Your task to perform on an android device: turn on javascript in the chrome app Image 0: 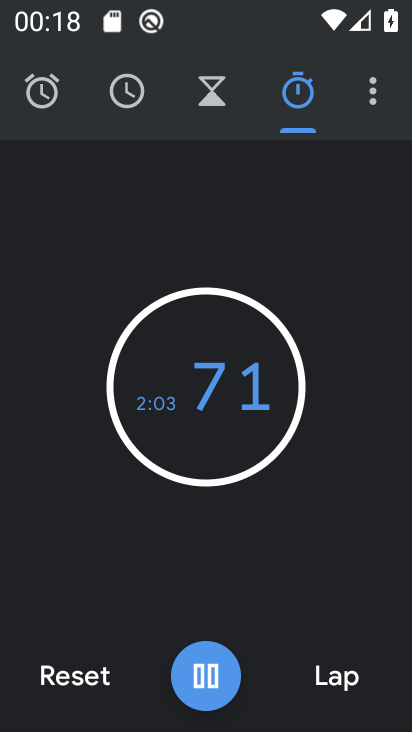
Step 0: press home button
Your task to perform on an android device: turn on javascript in the chrome app Image 1: 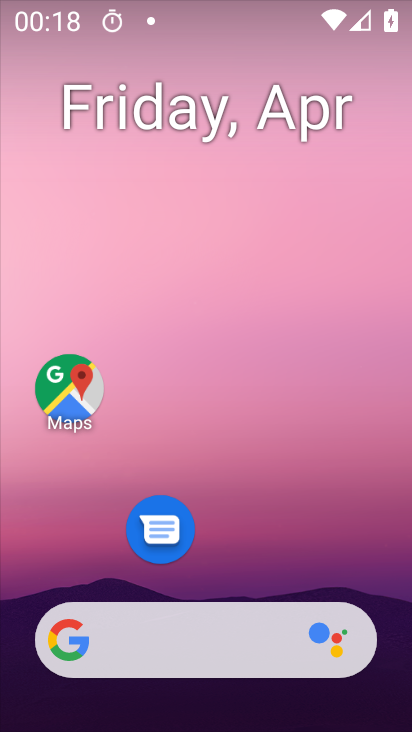
Step 1: drag from (236, 577) to (274, 114)
Your task to perform on an android device: turn on javascript in the chrome app Image 2: 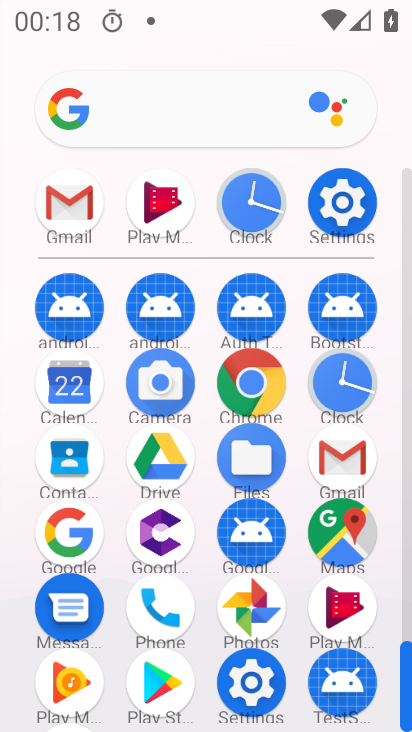
Step 2: click (270, 390)
Your task to perform on an android device: turn on javascript in the chrome app Image 3: 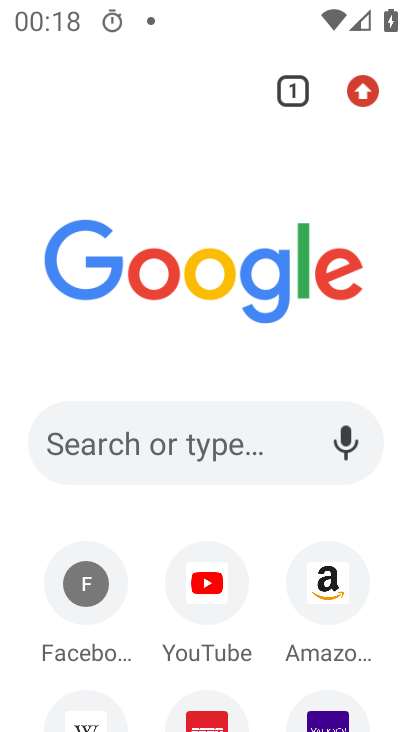
Step 3: click (366, 102)
Your task to perform on an android device: turn on javascript in the chrome app Image 4: 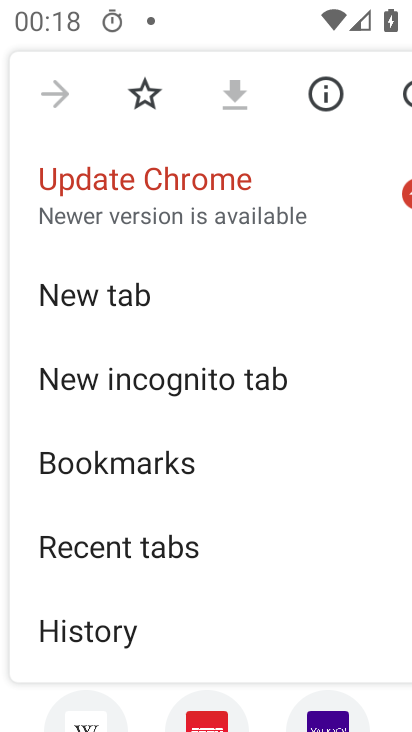
Step 4: drag from (173, 613) to (285, 215)
Your task to perform on an android device: turn on javascript in the chrome app Image 5: 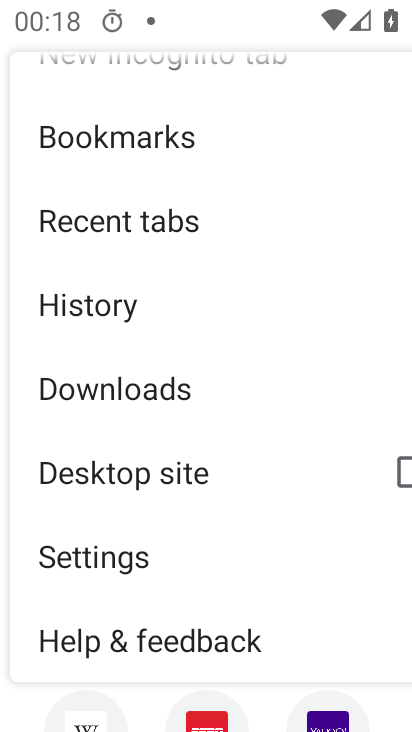
Step 5: click (127, 563)
Your task to perform on an android device: turn on javascript in the chrome app Image 6: 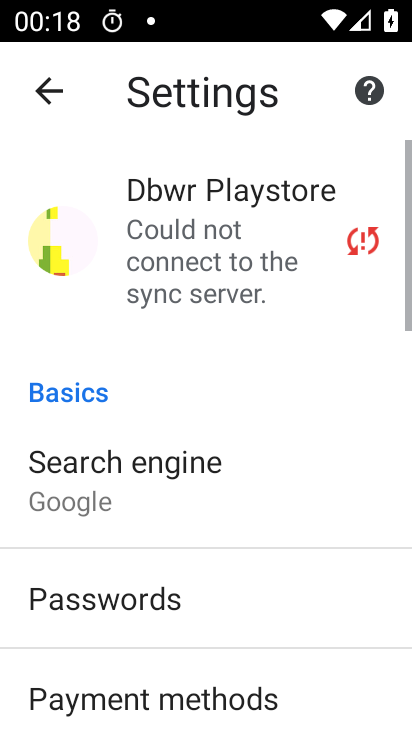
Step 6: drag from (140, 603) to (198, 302)
Your task to perform on an android device: turn on javascript in the chrome app Image 7: 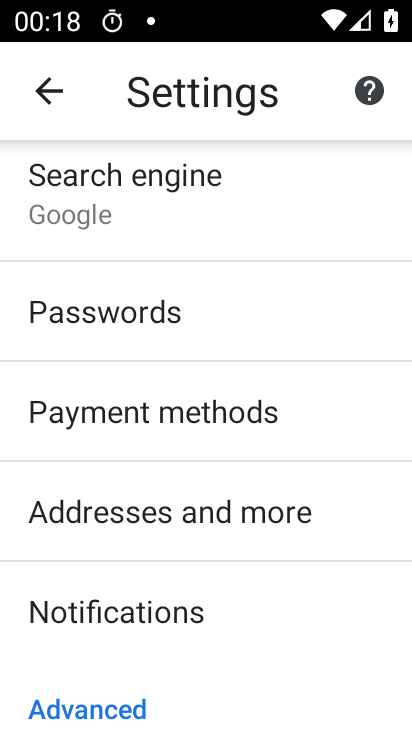
Step 7: drag from (142, 575) to (228, 277)
Your task to perform on an android device: turn on javascript in the chrome app Image 8: 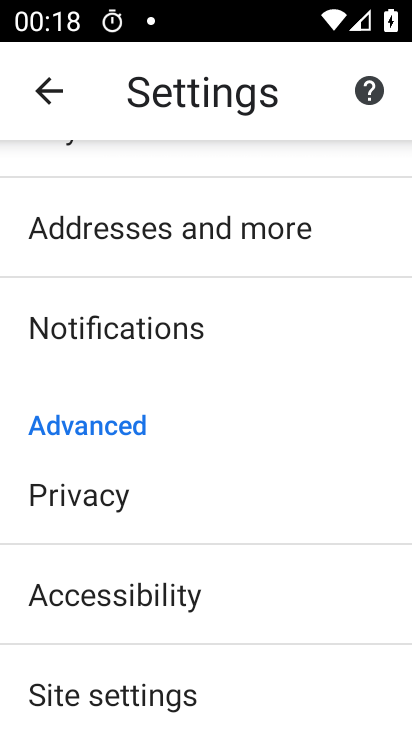
Step 8: drag from (156, 606) to (280, 142)
Your task to perform on an android device: turn on javascript in the chrome app Image 9: 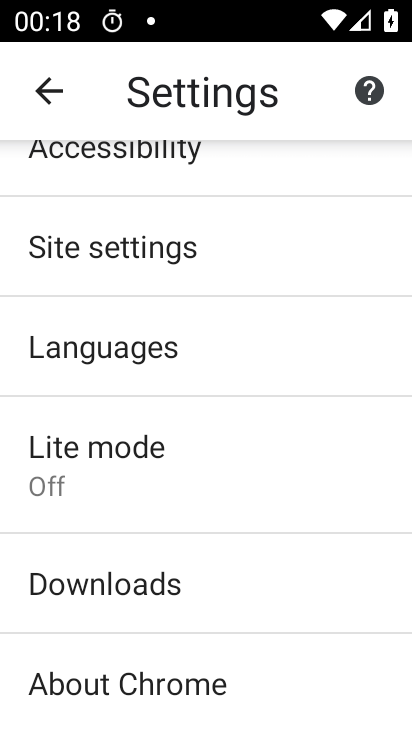
Step 9: click (145, 264)
Your task to perform on an android device: turn on javascript in the chrome app Image 10: 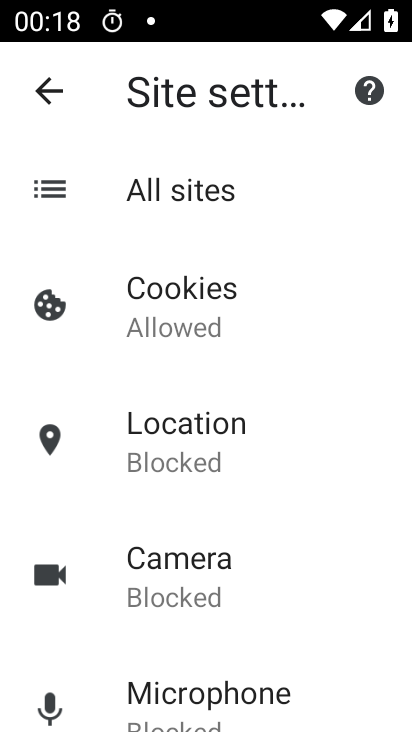
Step 10: drag from (162, 592) to (246, 220)
Your task to perform on an android device: turn on javascript in the chrome app Image 11: 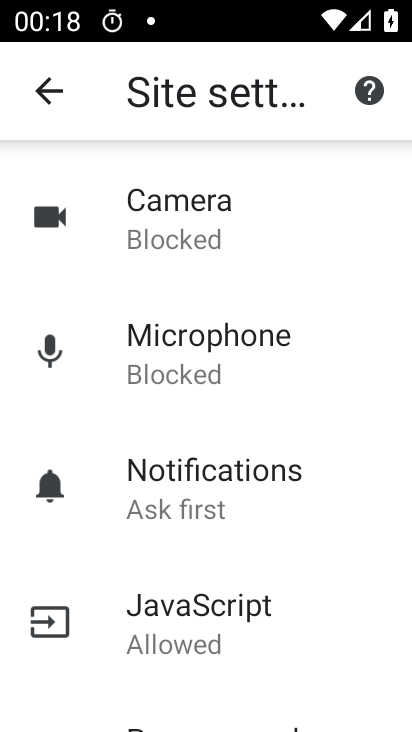
Step 11: click (158, 625)
Your task to perform on an android device: turn on javascript in the chrome app Image 12: 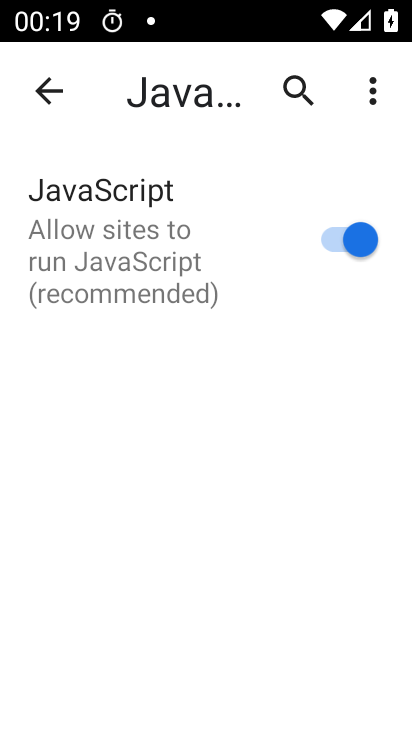
Step 12: task complete